Your task to perform on an android device: change the upload size in google photos Image 0: 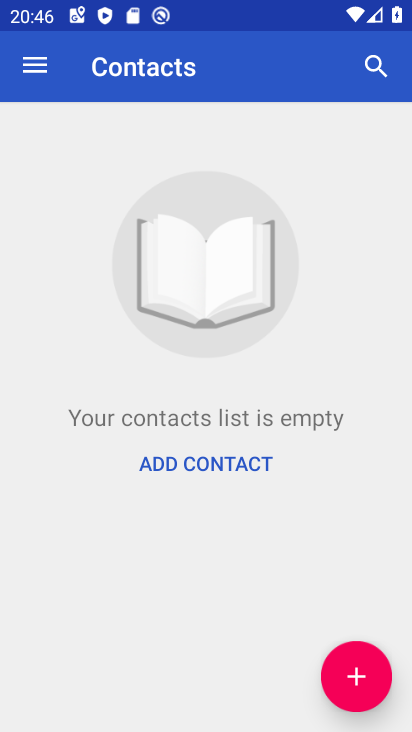
Step 0: press home button
Your task to perform on an android device: change the upload size in google photos Image 1: 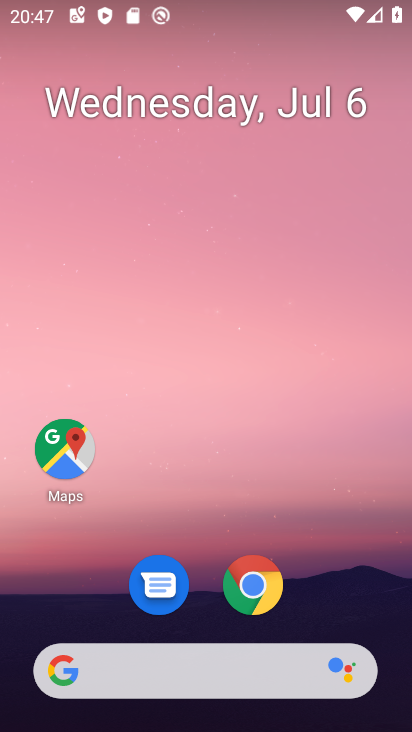
Step 1: drag from (190, 528) to (204, 13)
Your task to perform on an android device: change the upload size in google photos Image 2: 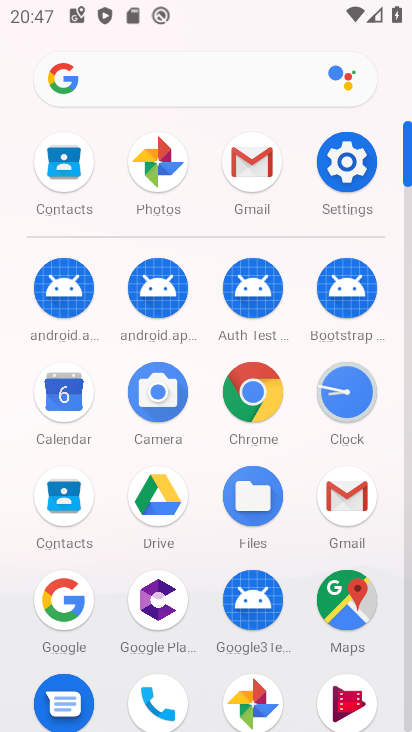
Step 2: click (165, 180)
Your task to perform on an android device: change the upload size in google photos Image 3: 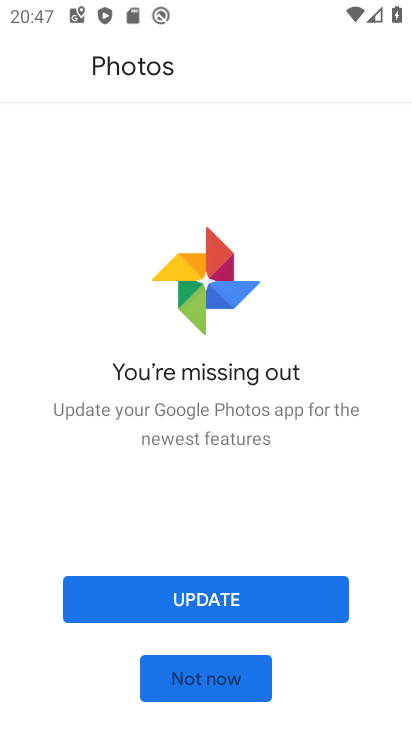
Step 3: click (213, 680)
Your task to perform on an android device: change the upload size in google photos Image 4: 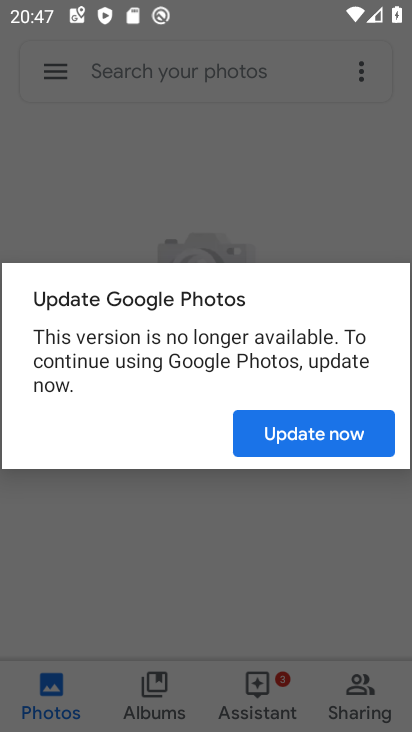
Step 4: click (253, 419)
Your task to perform on an android device: change the upload size in google photos Image 5: 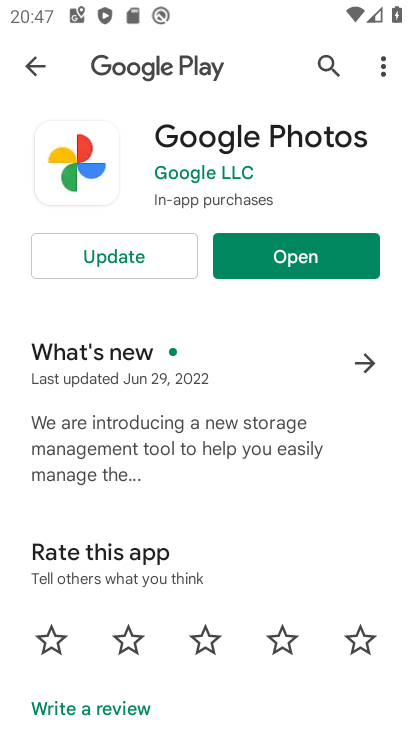
Step 5: click (316, 256)
Your task to perform on an android device: change the upload size in google photos Image 6: 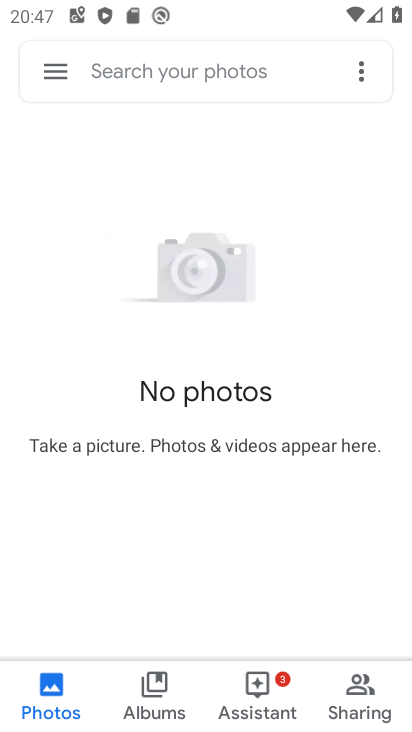
Step 6: click (45, 57)
Your task to perform on an android device: change the upload size in google photos Image 7: 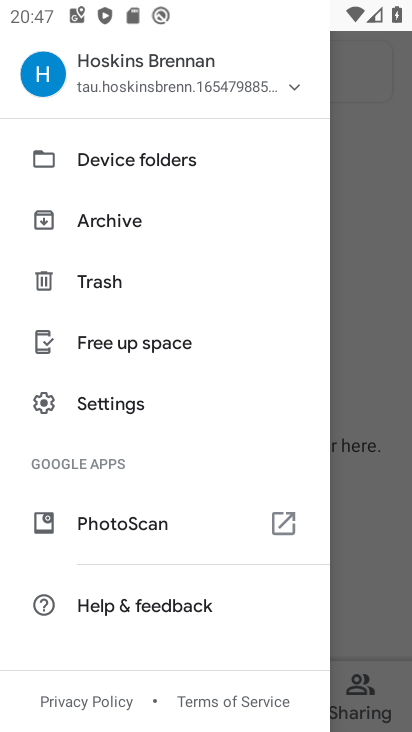
Step 7: click (102, 406)
Your task to perform on an android device: change the upload size in google photos Image 8: 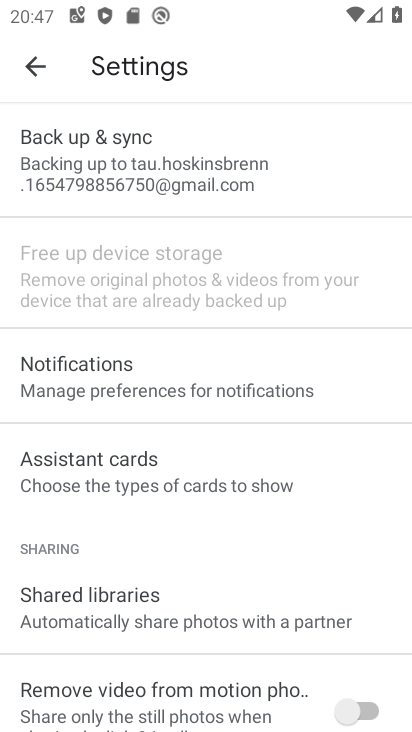
Step 8: drag from (203, 544) to (221, 117)
Your task to perform on an android device: change the upload size in google photos Image 9: 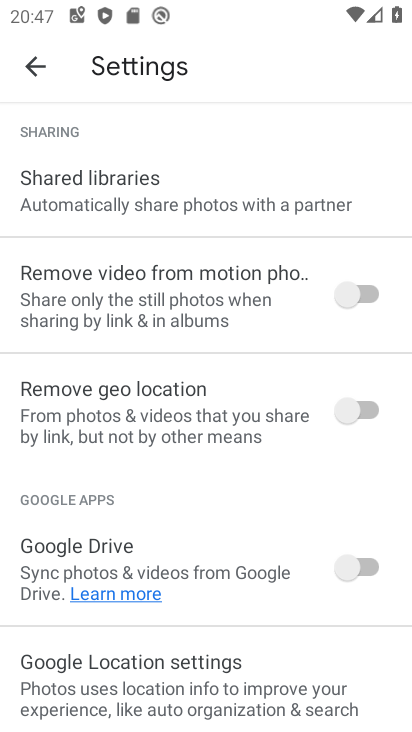
Step 9: drag from (198, 247) to (201, 611)
Your task to perform on an android device: change the upload size in google photos Image 10: 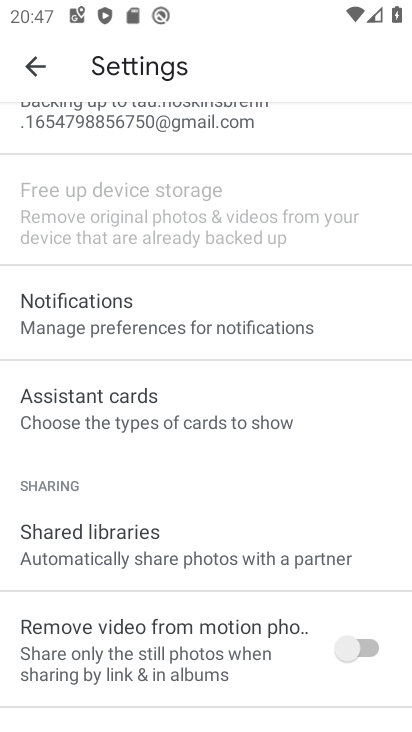
Step 10: drag from (196, 322) to (218, 541)
Your task to perform on an android device: change the upload size in google photos Image 11: 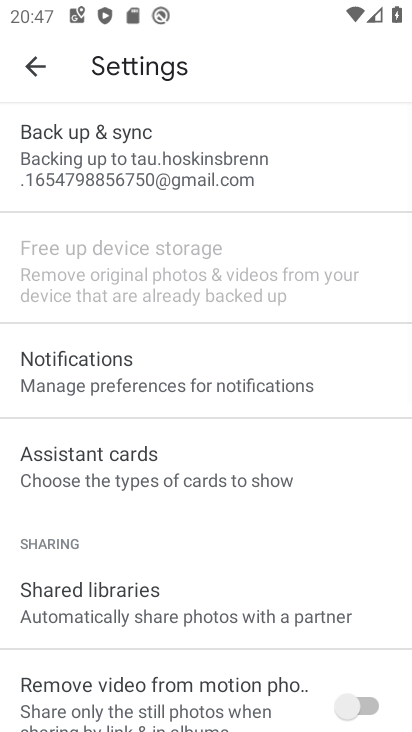
Step 11: click (179, 163)
Your task to perform on an android device: change the upload size in google photos Image 12: 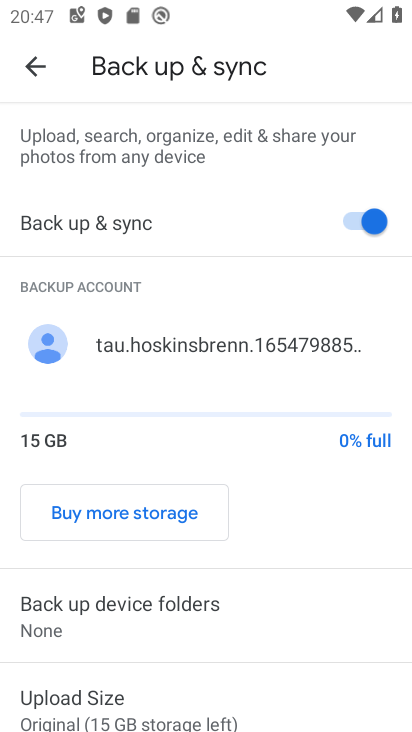
Step 12: drag from (201, 649) to (210, 232)
Your task to perform on an android device: change the upload size in google photos Image 13: 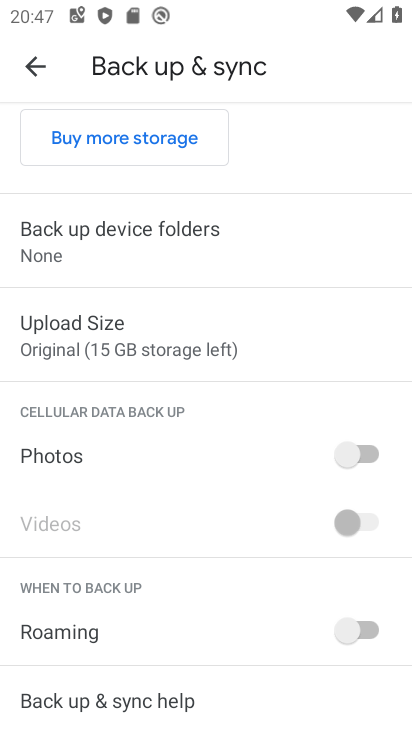
Step 13: click (201, 346)
Your task to perform on an android device: change the upload size in google photos Image 14: 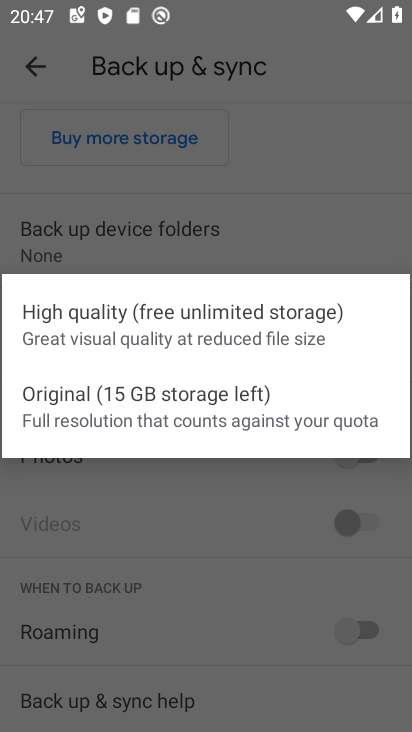
Step 14: click (201, 310)
Your task to perform on an android device: change the upload size in google photos Image 15: 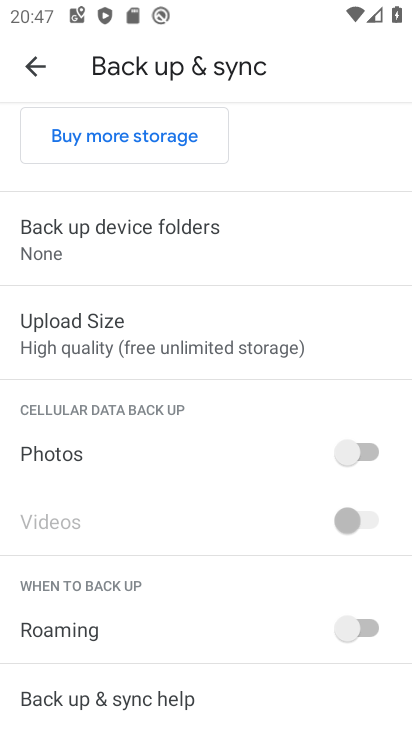
Step 15: task complete